Your task to perform on an android device: turn on wifi Image 0: 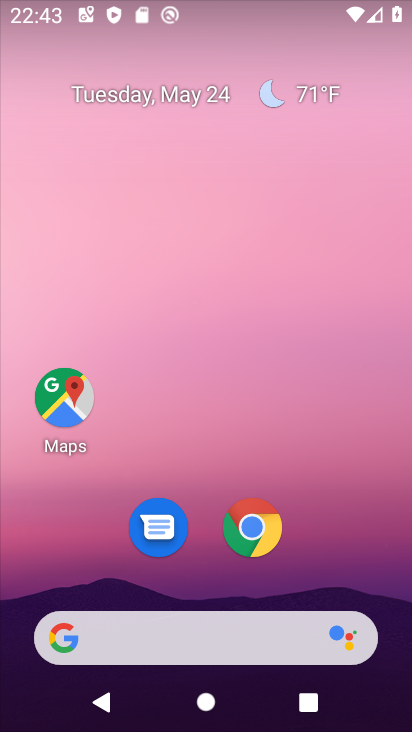
Step 0: drag from (359, 559) to (281, 34)
Your task to perform on an android device: turn on wifi Image 1: 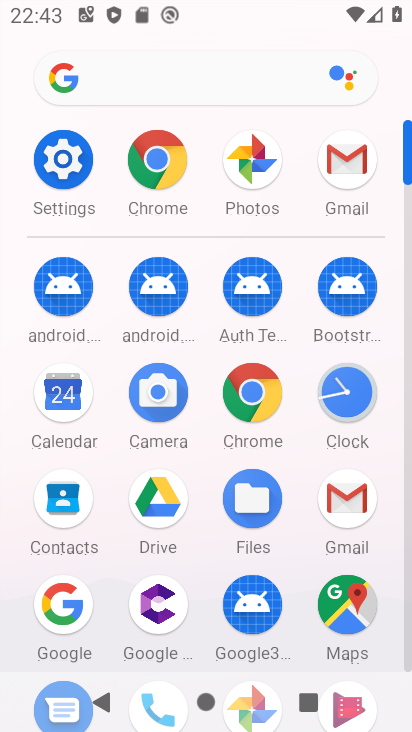
Step 1: click (78, 167)
Your task to perform on an android device: turn on wifi Image 2: 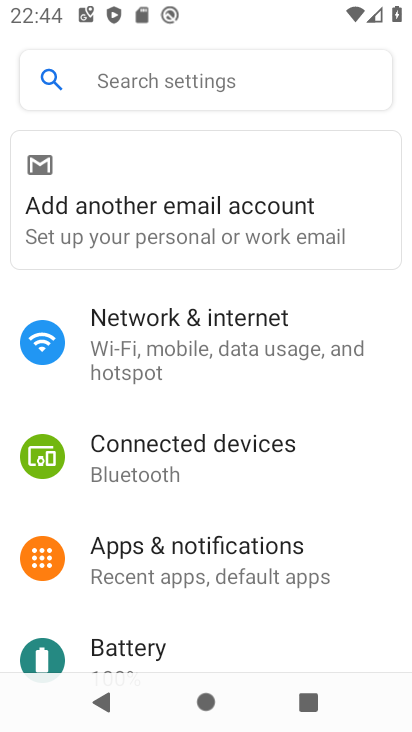
Step 2: click (71, 329)
Your task to perform on an android device: turn on wifi Image 3: 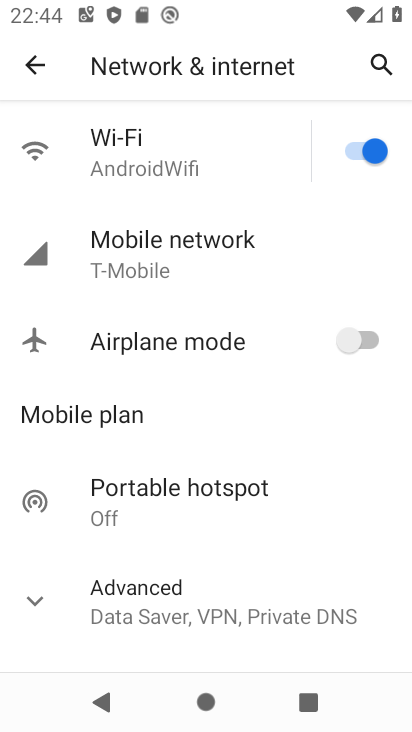
Step 3: task complete